Your task to perform on an android device: Open battery settings Image 0: 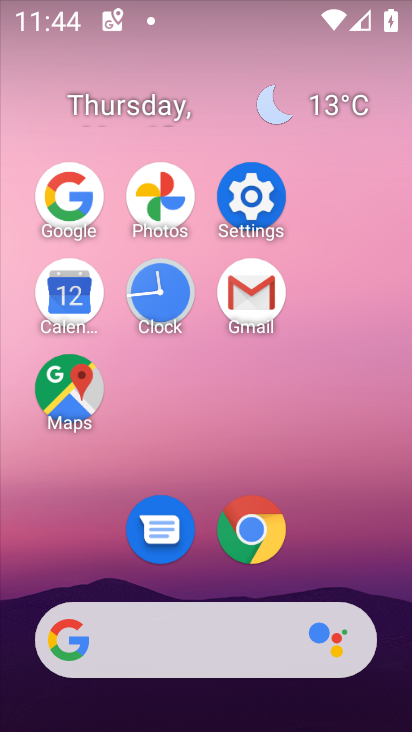
Step 0: click (199, 481)
Your task to perform on an android device: Open battery settings Image 1: 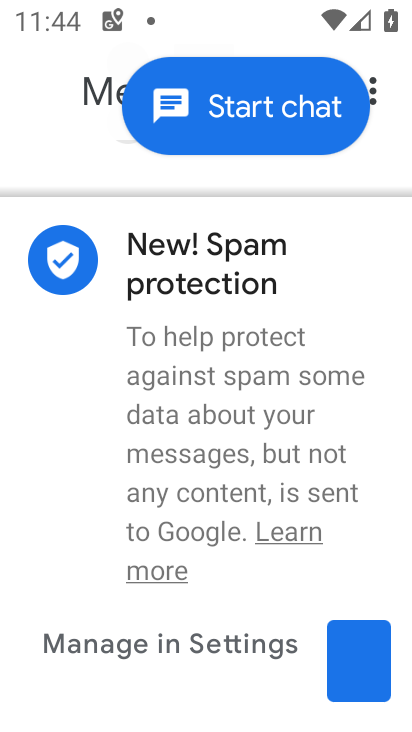
Step 1: press home button
Your task to perform on an android device: Open battery settings Image 2: 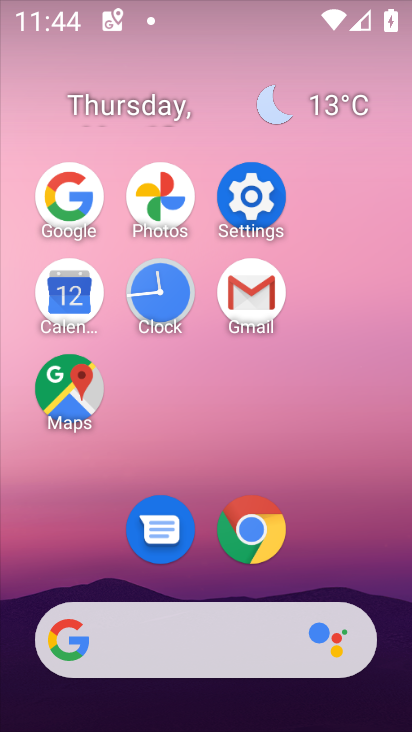
Step 2: click (271, 202)
Your task to perform on an android device: Open battery settings Image 3: 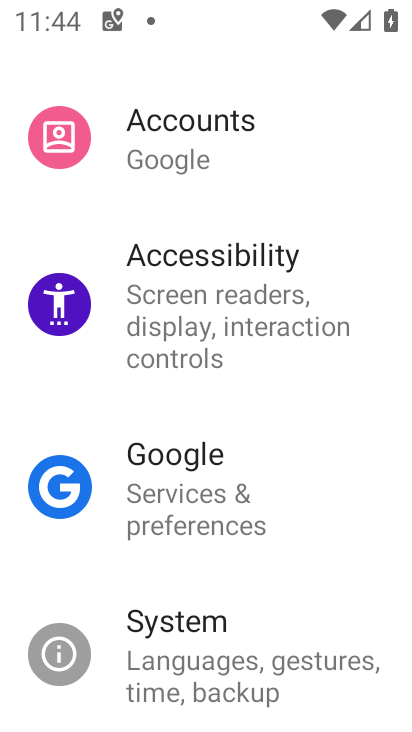
Step 3: drag from (321, 186) to (323, 652)
Your task to perform on an android device: Open battery settings Image 4: 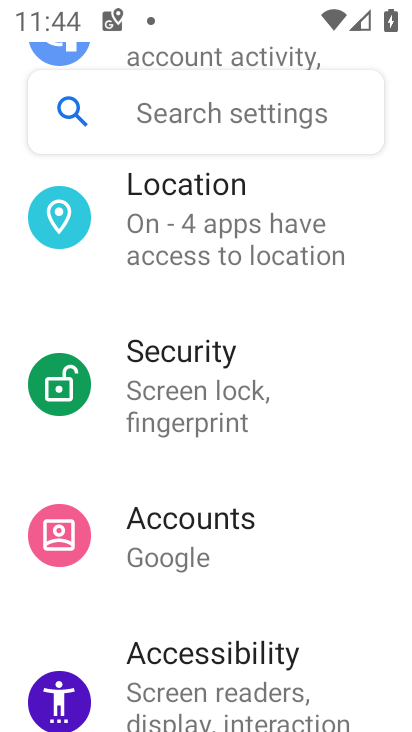
Step 4: drag from (298, 303) to (323, 688)
Your task to perform on an android device: Open battery settings Image 5: 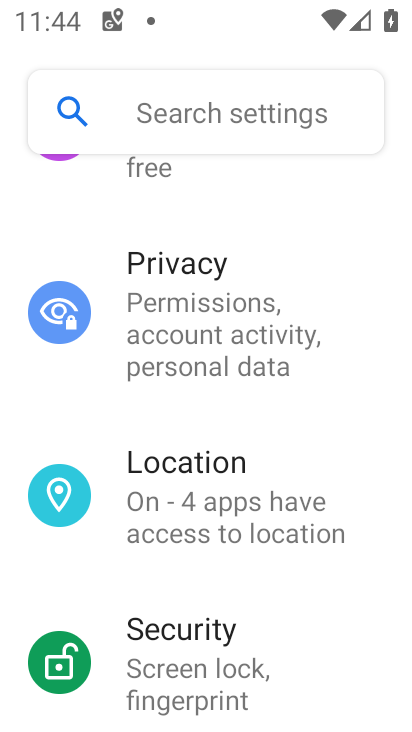
Step 5: drag from (290, 189) to (286, 683)
Your task to perform on an android device: Open battery settings Image 6: 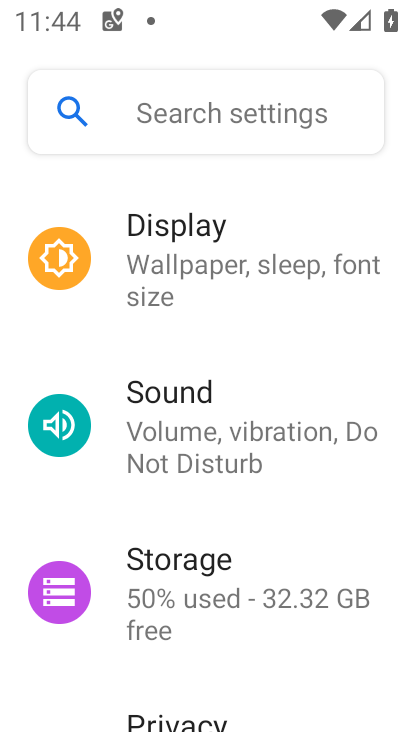
Step 6: drag from (329, 217) to (334, 690)
Your task to perform on an android device: Open battery settings Image 7: 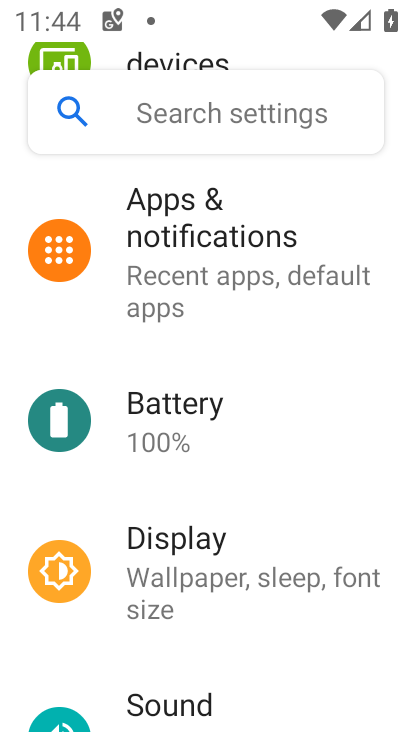
Step 7: click (151, 436)
Your task to perform on an android device: Open battery settings Image 8: 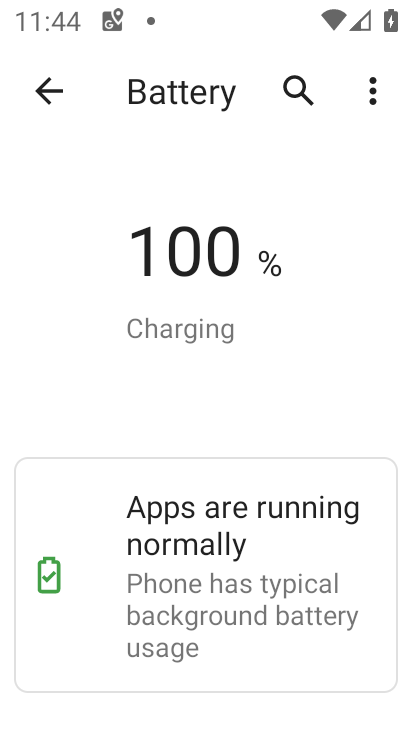
Step 8: task complete